Your task to perform on an android device: Clear the shopping cart on ebay.com. Search for amazon basics triple a on ebay.com, select the first entry, add it to the cart, then select checkout. Image 0: 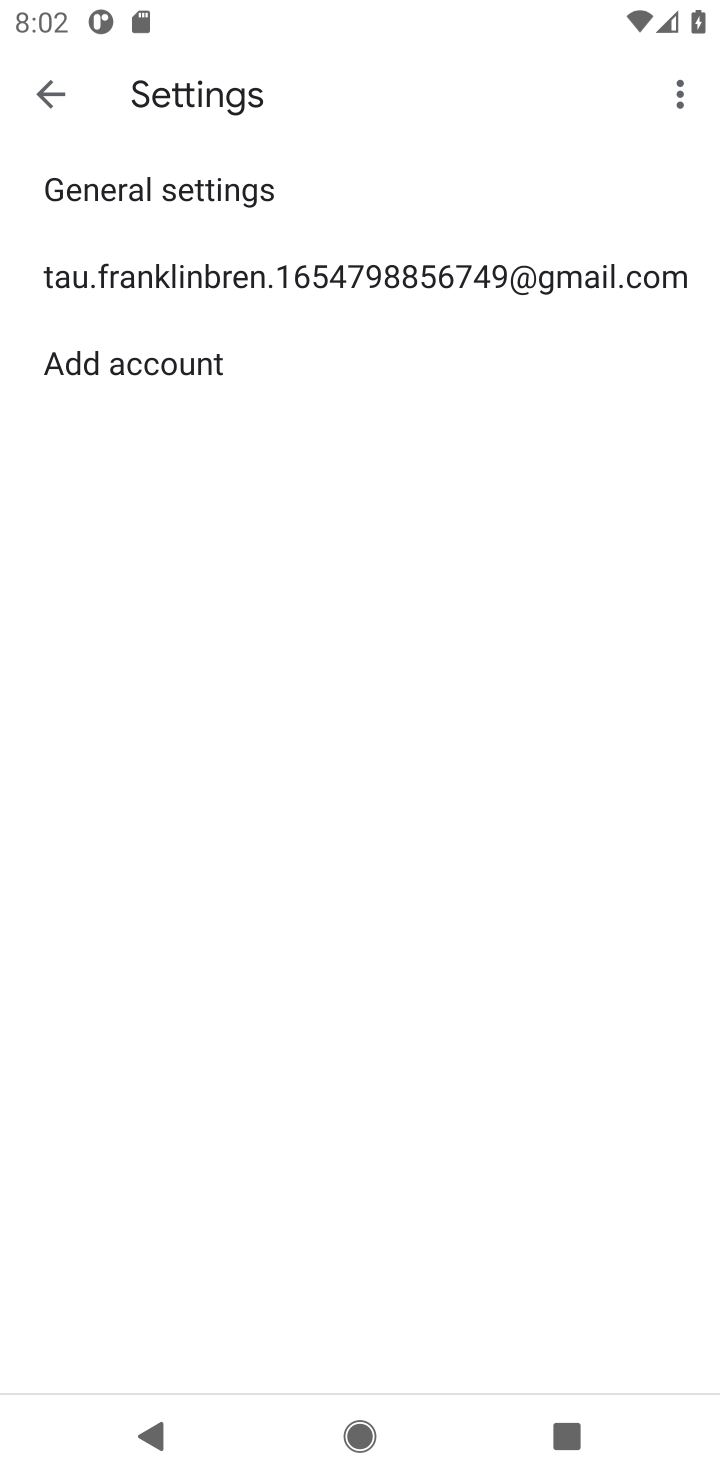
Step 0: press home button
Your task to perform on an android device: Clear the shopping cart on ebay.com. Search for amazon basics triple a on ebay.com, select the first entry, add it to the cart, then select checkout. Image 1: 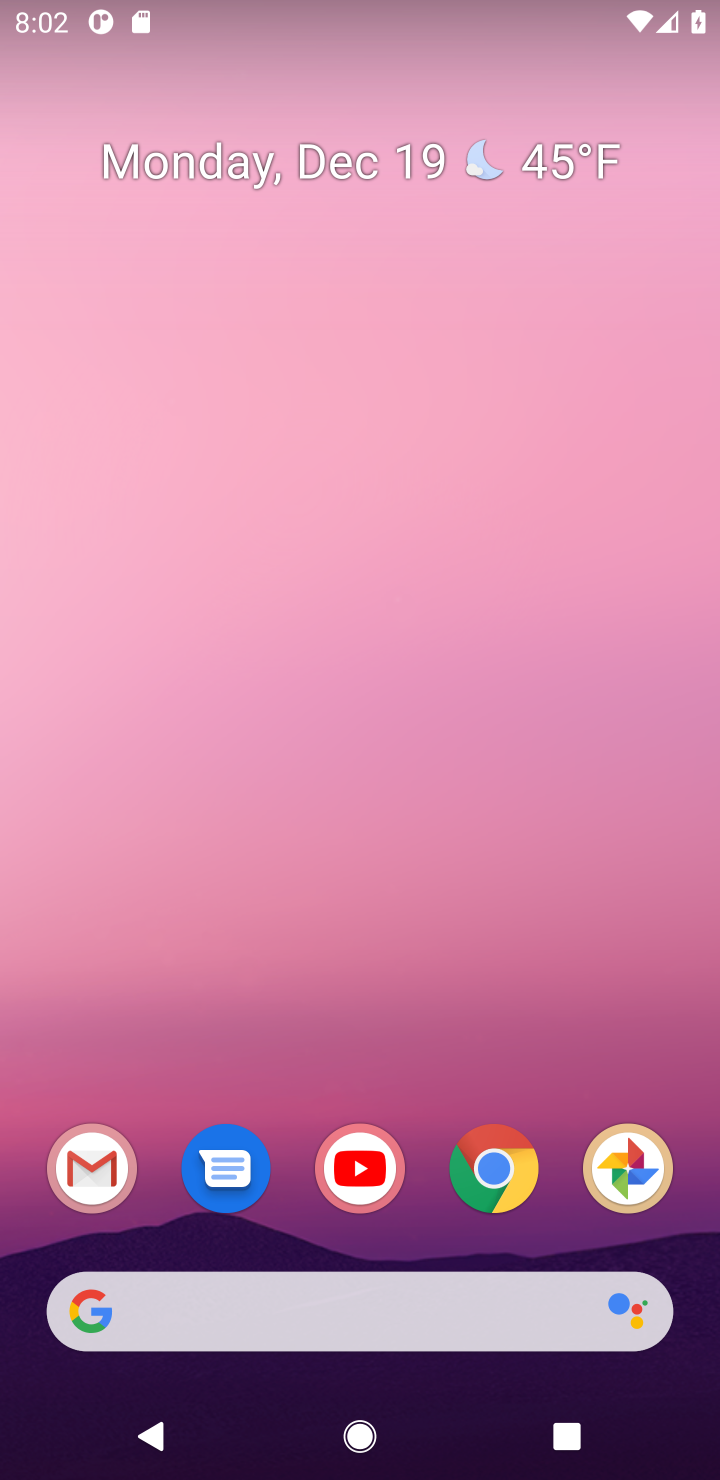
Step 1: click (511, 1177)
Your task to perform on an android device: Clear the shopping cart on ebay.com. Search for amazon basics triple a on ebay.com, select the first entry, add it to the cart, then select checkout. Image 2: 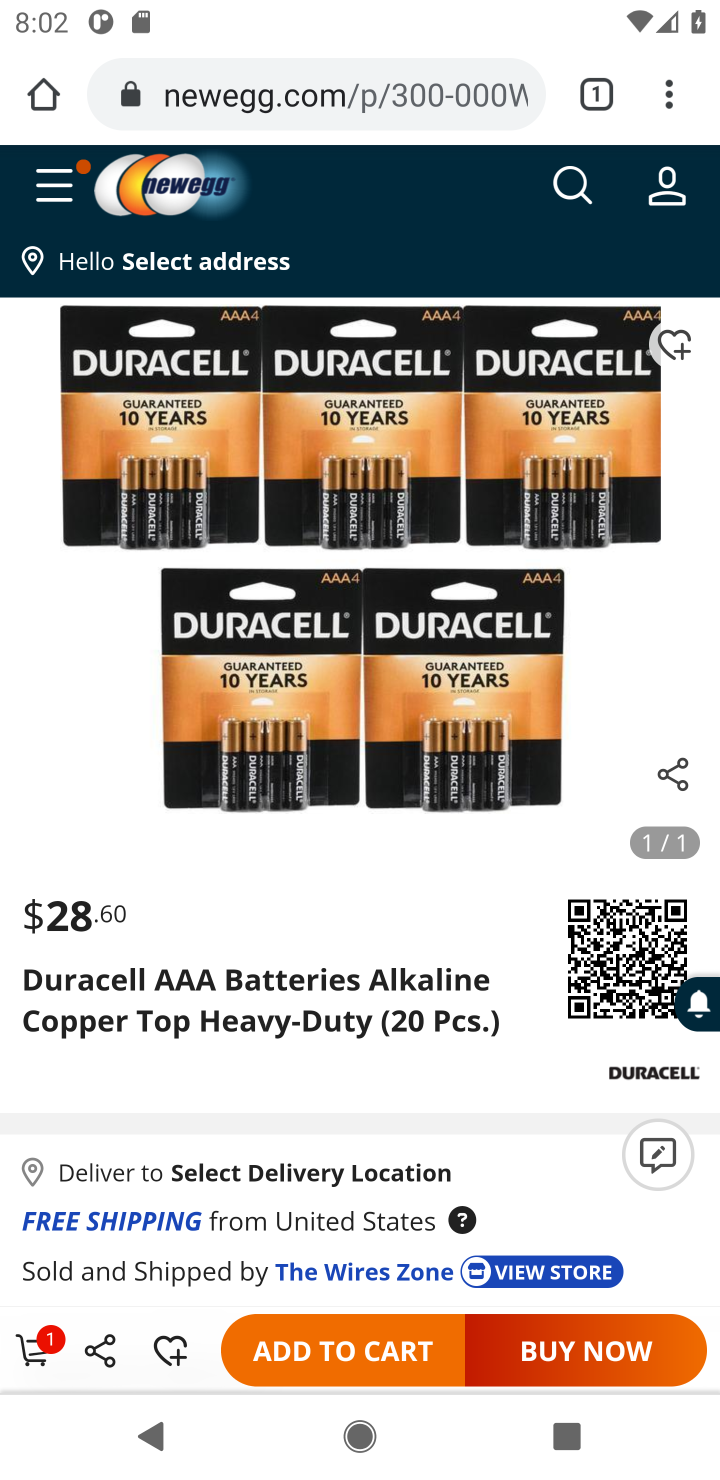
Step 2: click (236, 101)
Your task to perform on an android device: Clear the shopping cart on ebay.com. Search for amazon basics triple a on ebay.com, select the first entry, add it to the cart, then select checkout. Image 3: 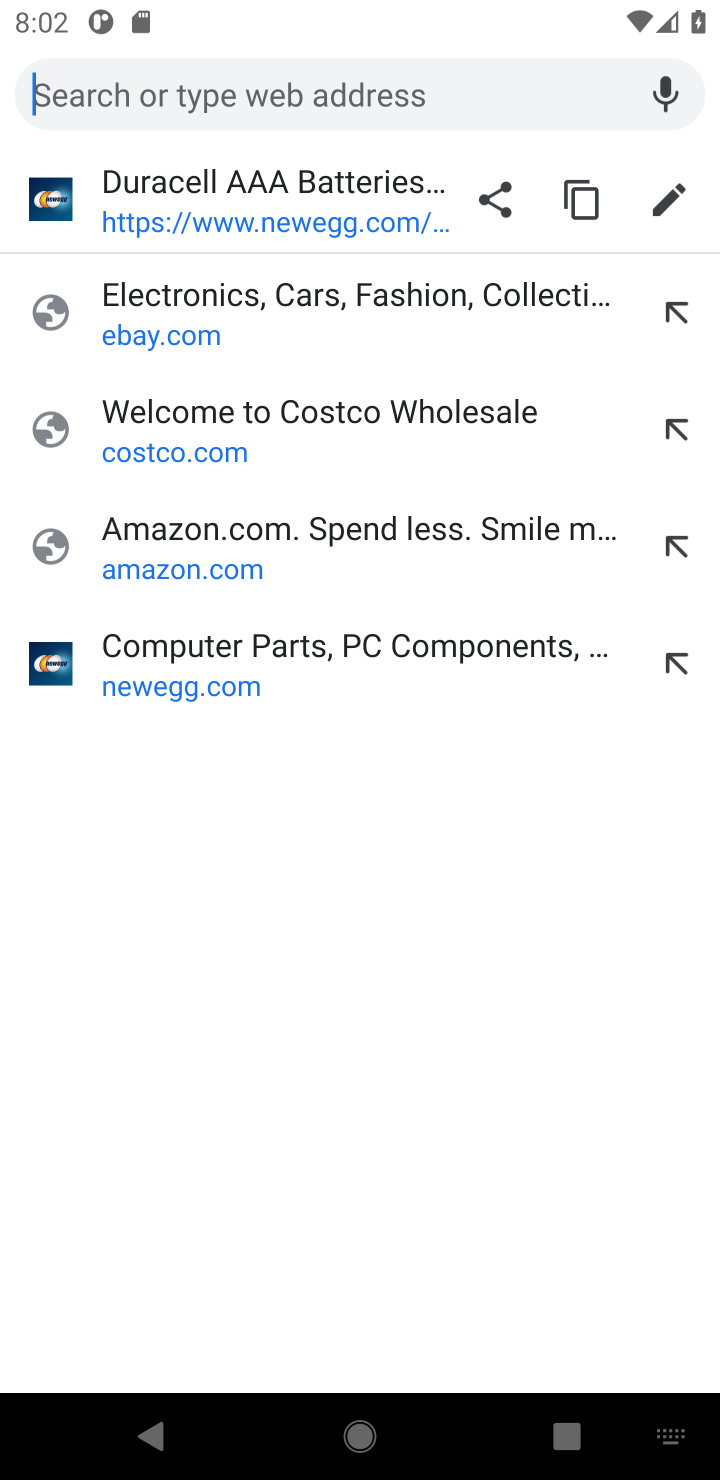
Step 3: click (168, 332)
Your task to perform on an android device: Clear the shopping cart on ebay.com. Search for amazon basics triple a on ebay.com, select the first entry, add it to the cart, then select checkout. Image 4: 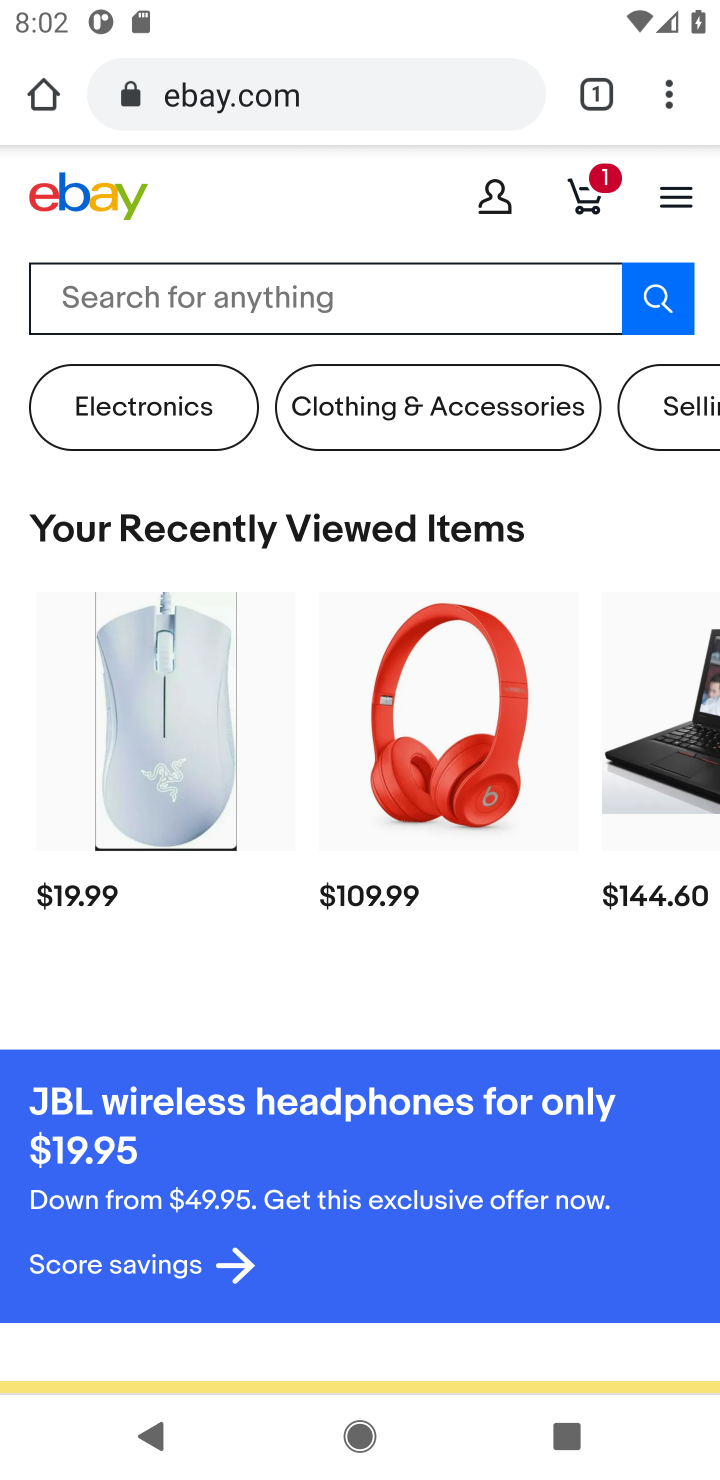
Step 4: click (591, 193)
Your task to perform on an android device: Clear the shopping cart on ebay.com. Search for amazon basics triple a on ebay.com, select the first entry, add it to the cart, then select checkout. Image 5: 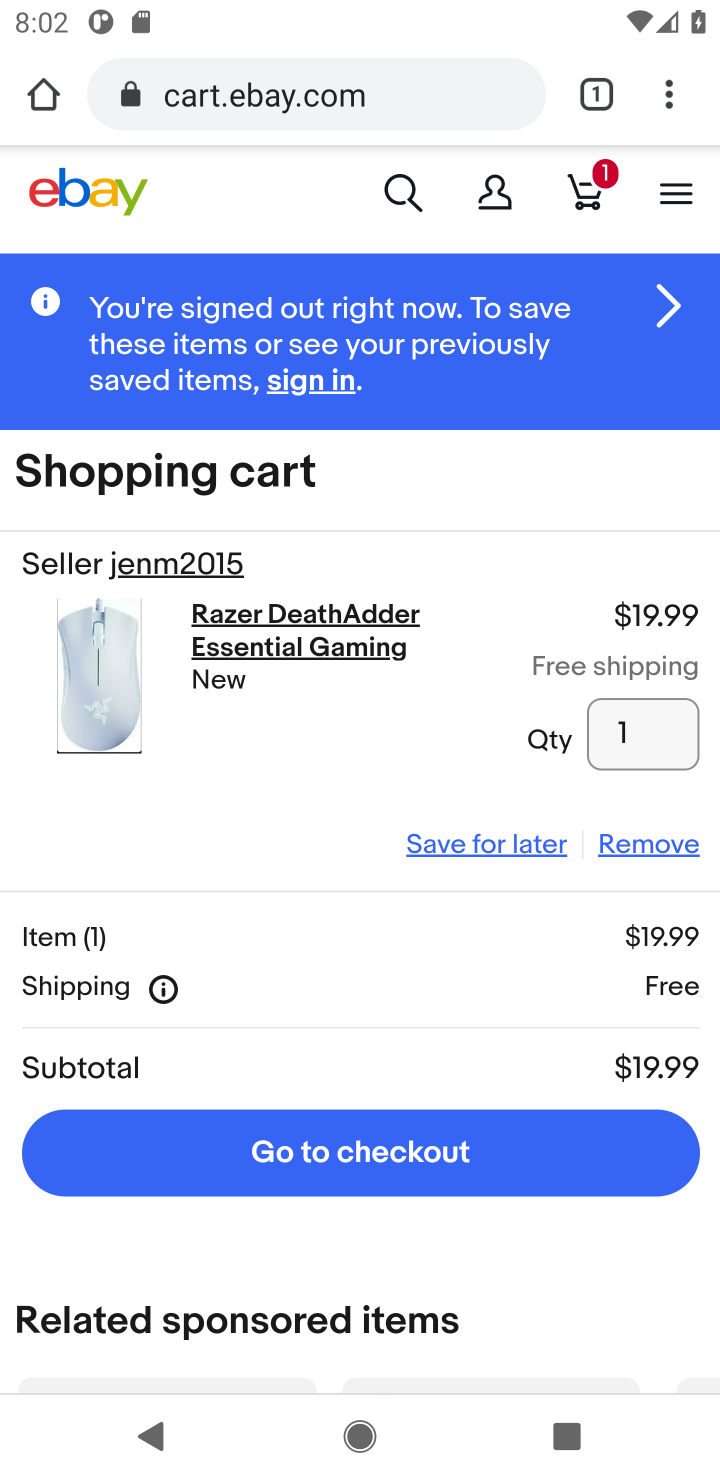
Step 5: click (635, 838)
Your task to perform on an android device: Clear the shopping cart on ebay.com. Search for amazon basics triple a on ebay.com, select the first entry, add it to the cart, then select checkout. Image 6: 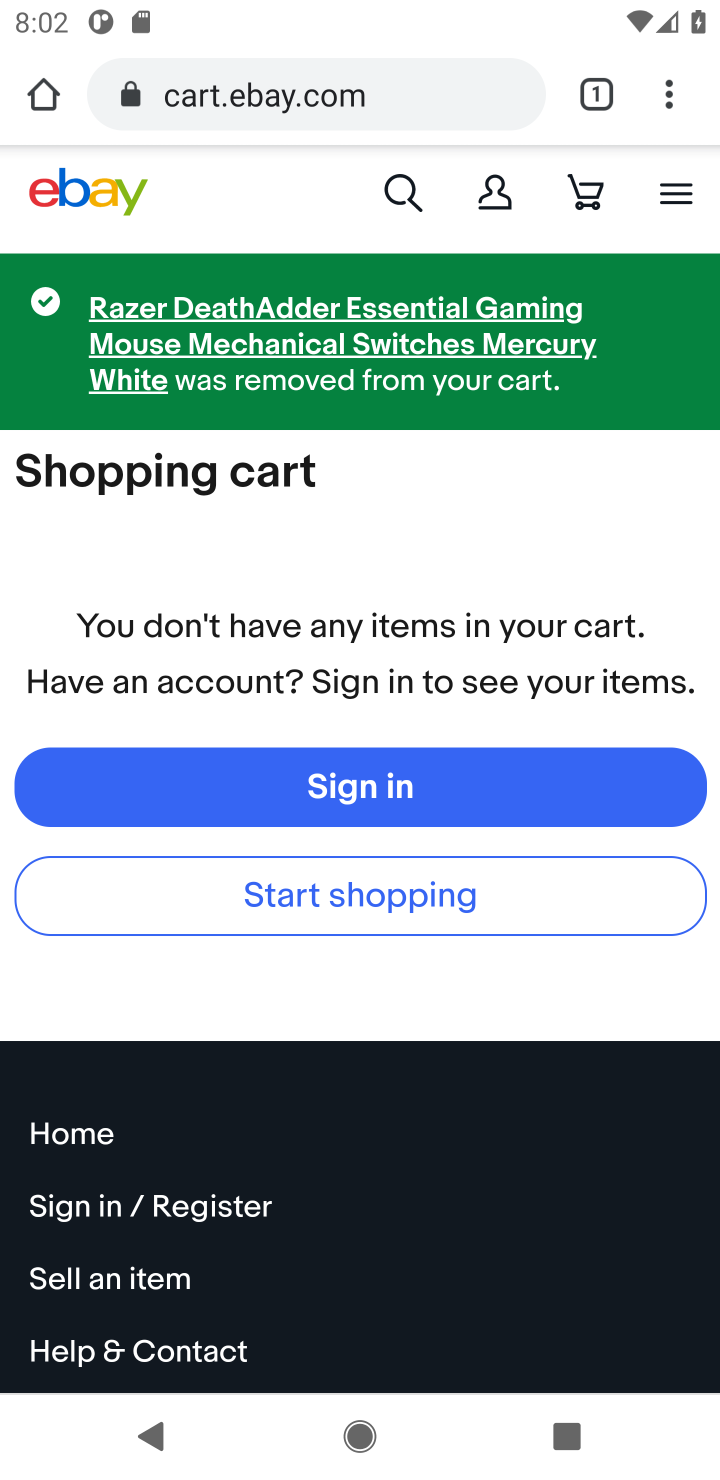
Step 6: click (393, 194)
Your task to perform on an android device: Clear the shopping cart on ebay.com. Search for amazon basics triple a on ebay.com, select the first entry, add it to the cart, then select checkout. Image 7: 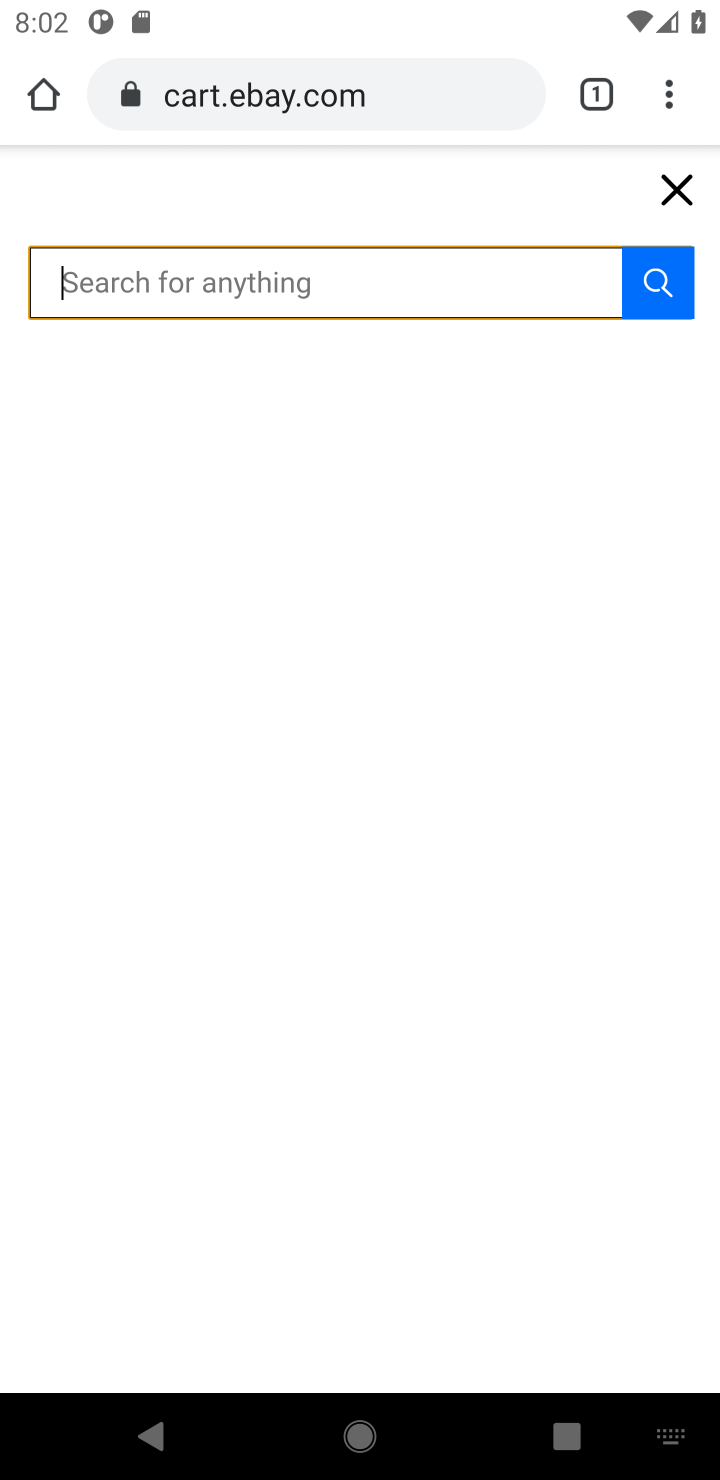
Step 7: type "amazon basics triple a"
Your task to perform on an android device: Clear the shopping cart on ebay.com. Search for amazon basics triple a on ebay.com, select the first entry, add it to the cart, then select checkout. Image 8: 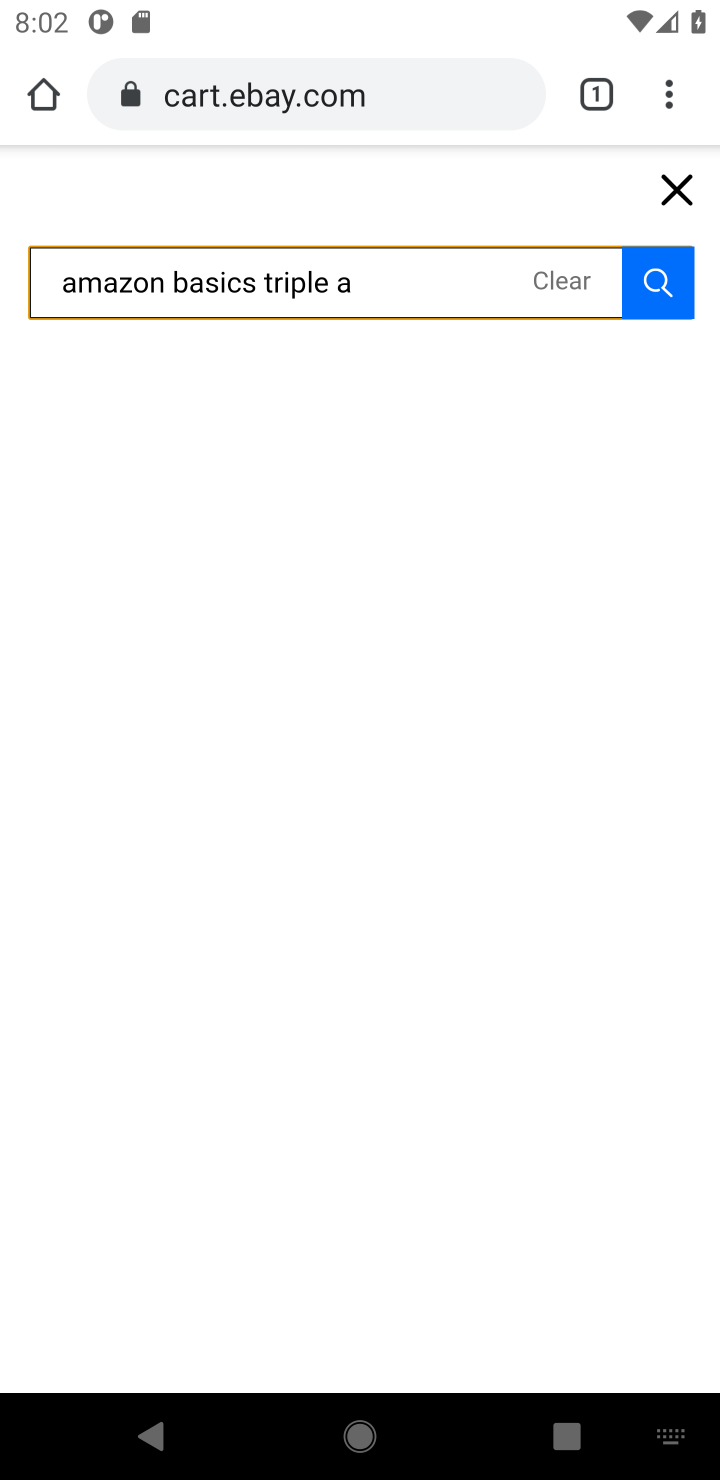
Step 8: click (644, 281)
Your task to perform on an android device: Clear the shopping cart on ebay.com. Search for amazon basics triple a on ebay.com, select the first entry, add it to the cart, then select checkout. Image 9: 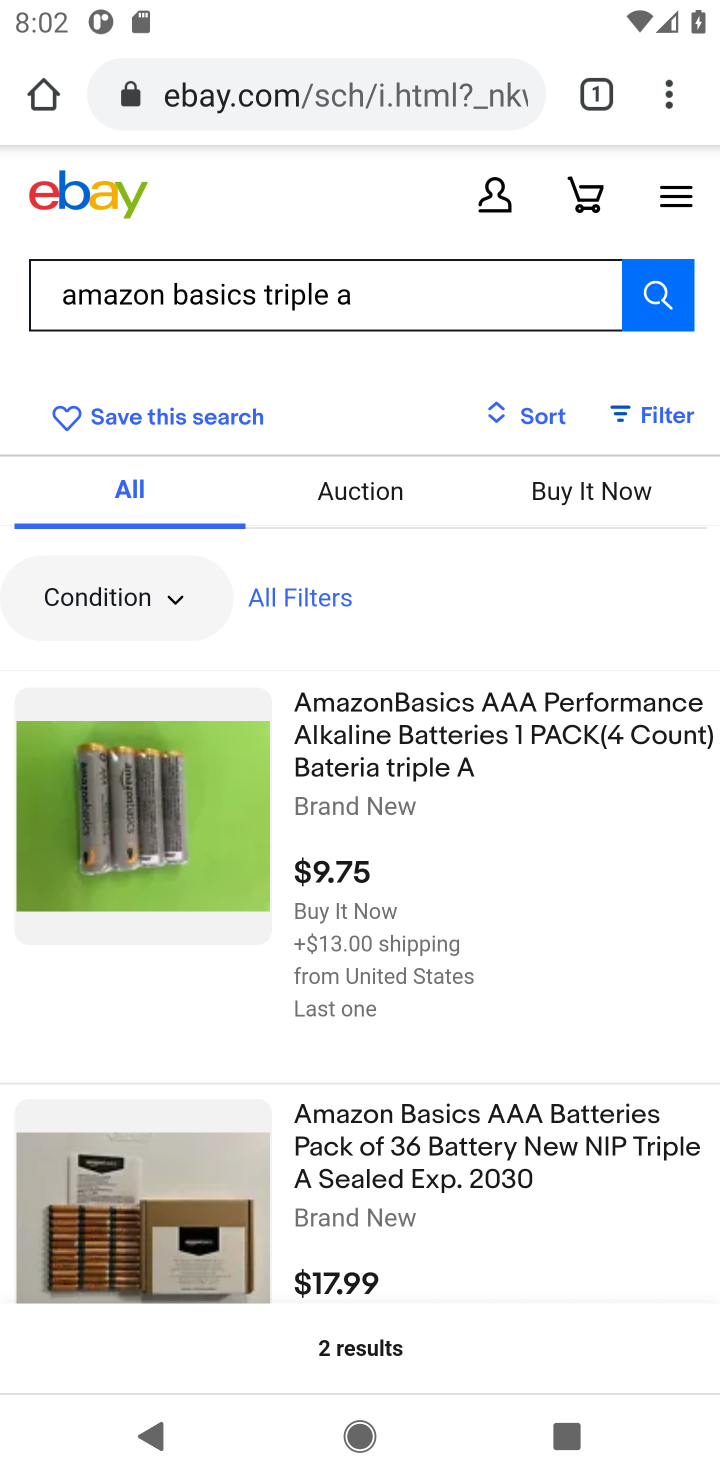
Step 9: click (321, 718)
Your task to perform on an android device: Clear the shopping cart on ebay.com. Search for amazon basics triple a on ebay.com, select the first entry, add it to the cart, then select checkout. Image 10: 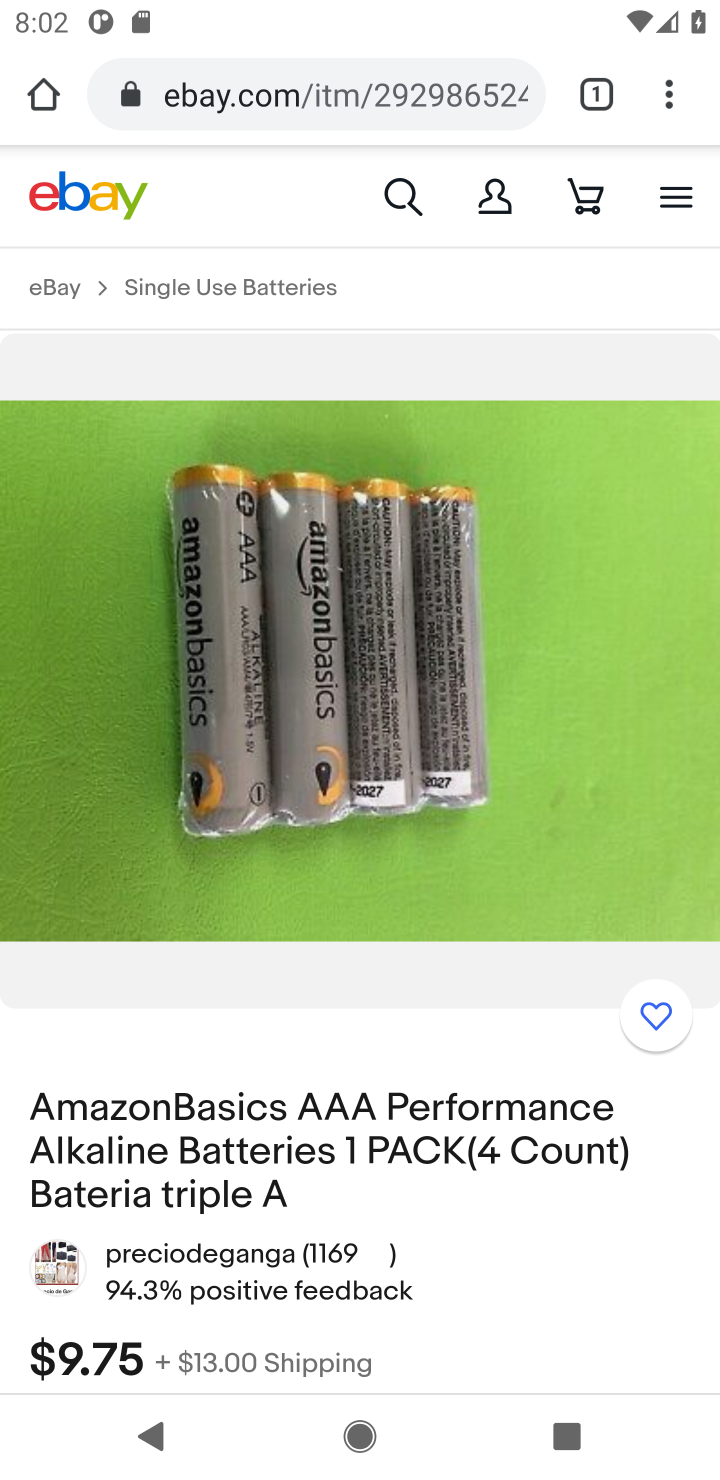
Step 10: drag from (303, 831) to (306, 457)
Your task to perform on an android device: Clear the shopping cart on ebay.com. Search for amazon basics triple a on ebay.com, select the first entry, add it to the cart, then select checkout. Image 11: 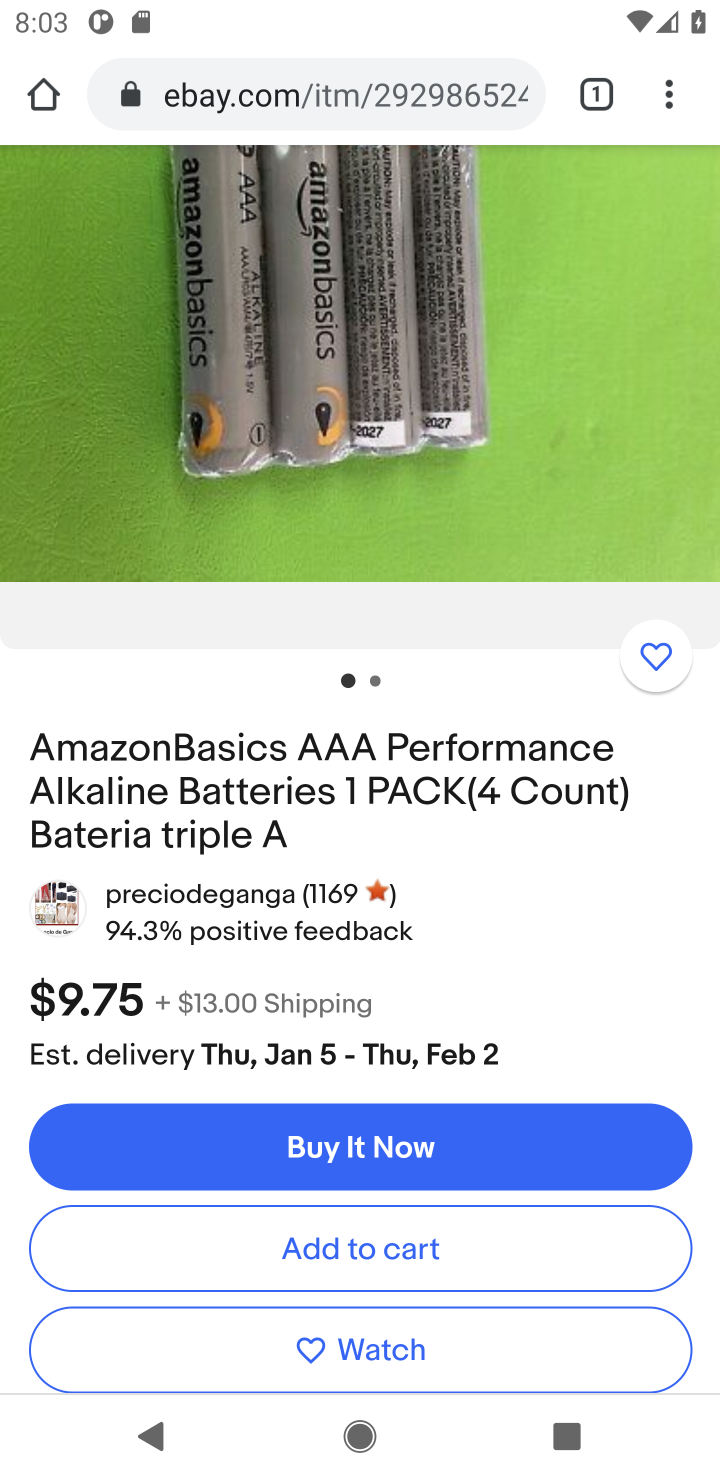
Step 11: click (291, 1239)
Your task to perform on an android device: Clear the shopping cart on ebay.com. Search for amazon basics triple a on ebay.com, select the first entry, add it to the cart, then select checkout. Image 12: 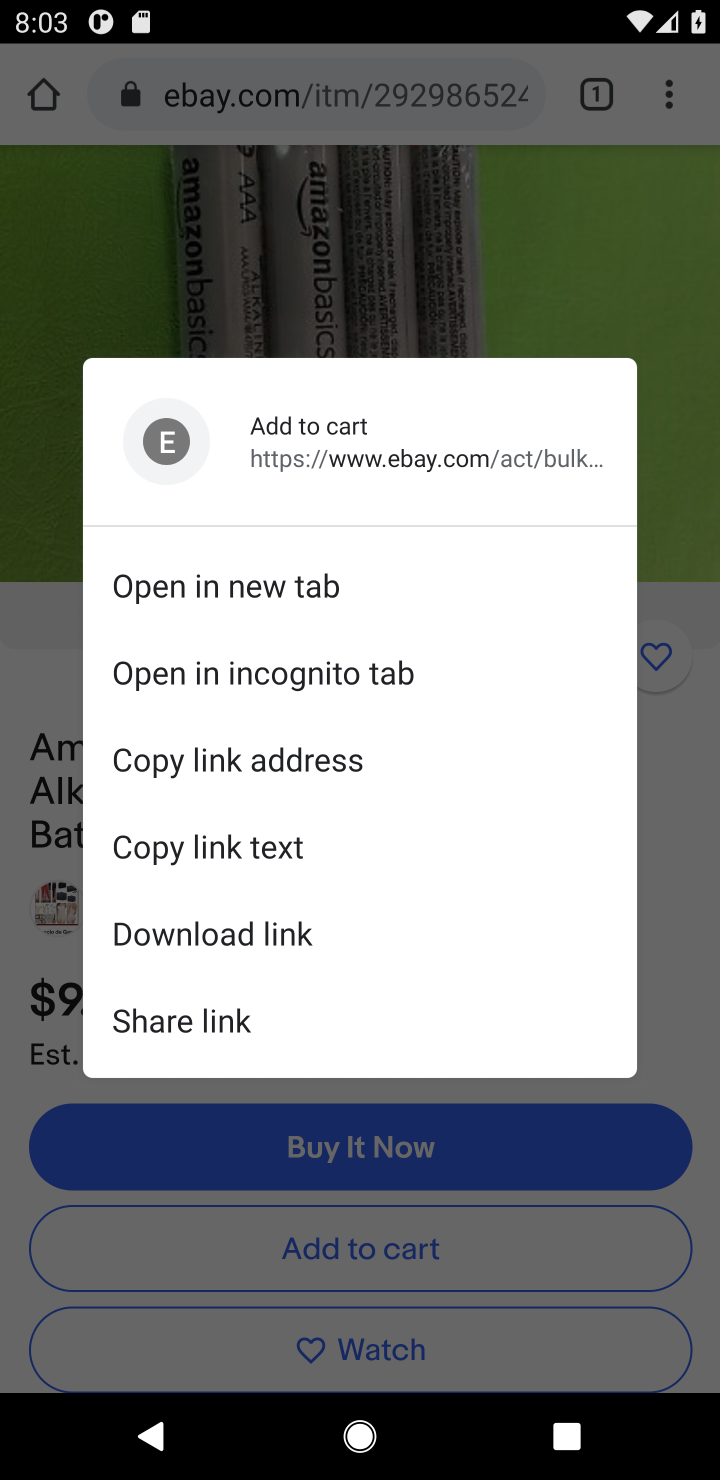
Step 12: click (489, 1265)
Your task to perform on an android device: Clear the shopping cart on ebay.com. Search for amazon basics triple a on ebay.com, select the first entry, add it to the cart, then select checkout. Image 13: 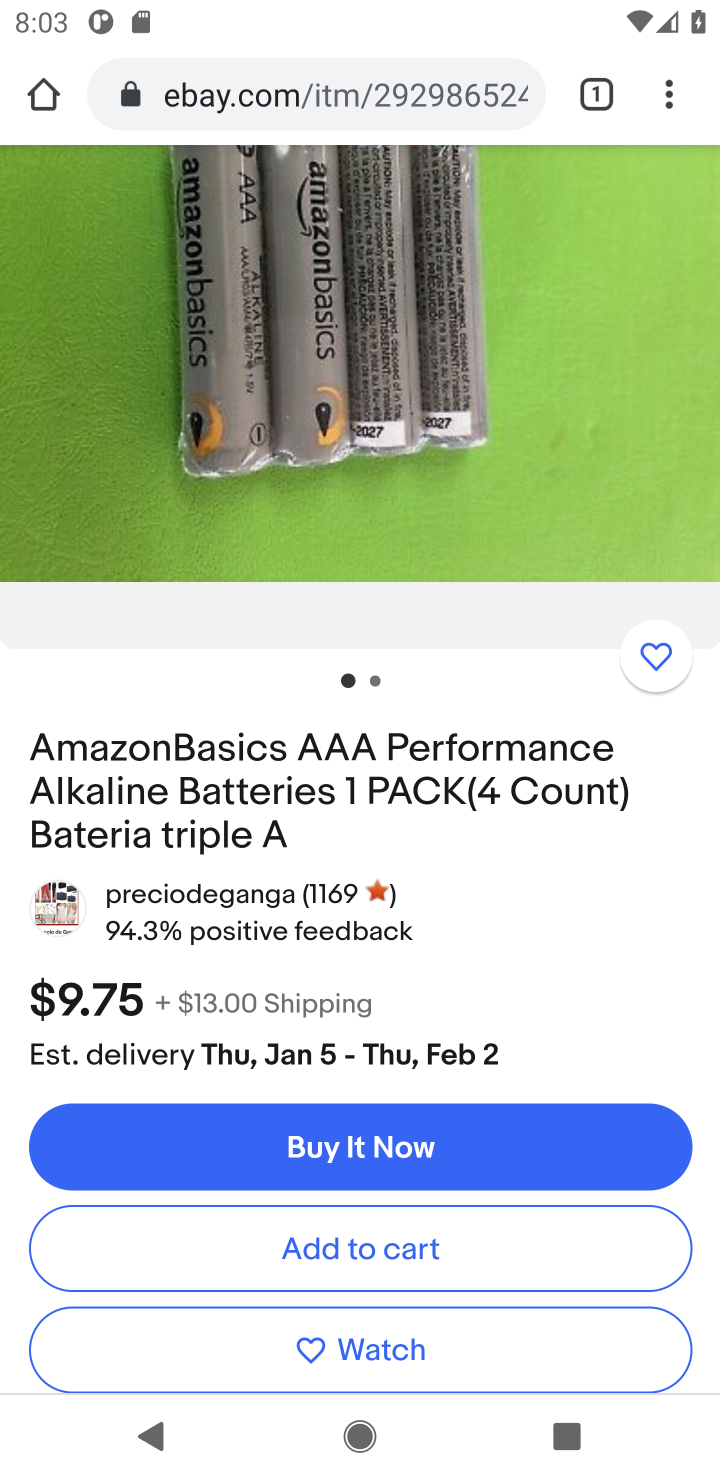
Step 13: click (379, 1244)
Your task to perform on an android device: Clear the shopping cart on ebay.com. Search for amazon basics triple a on ebay.com, select the first entry, add it to the cart, then select checkout. Image 14: 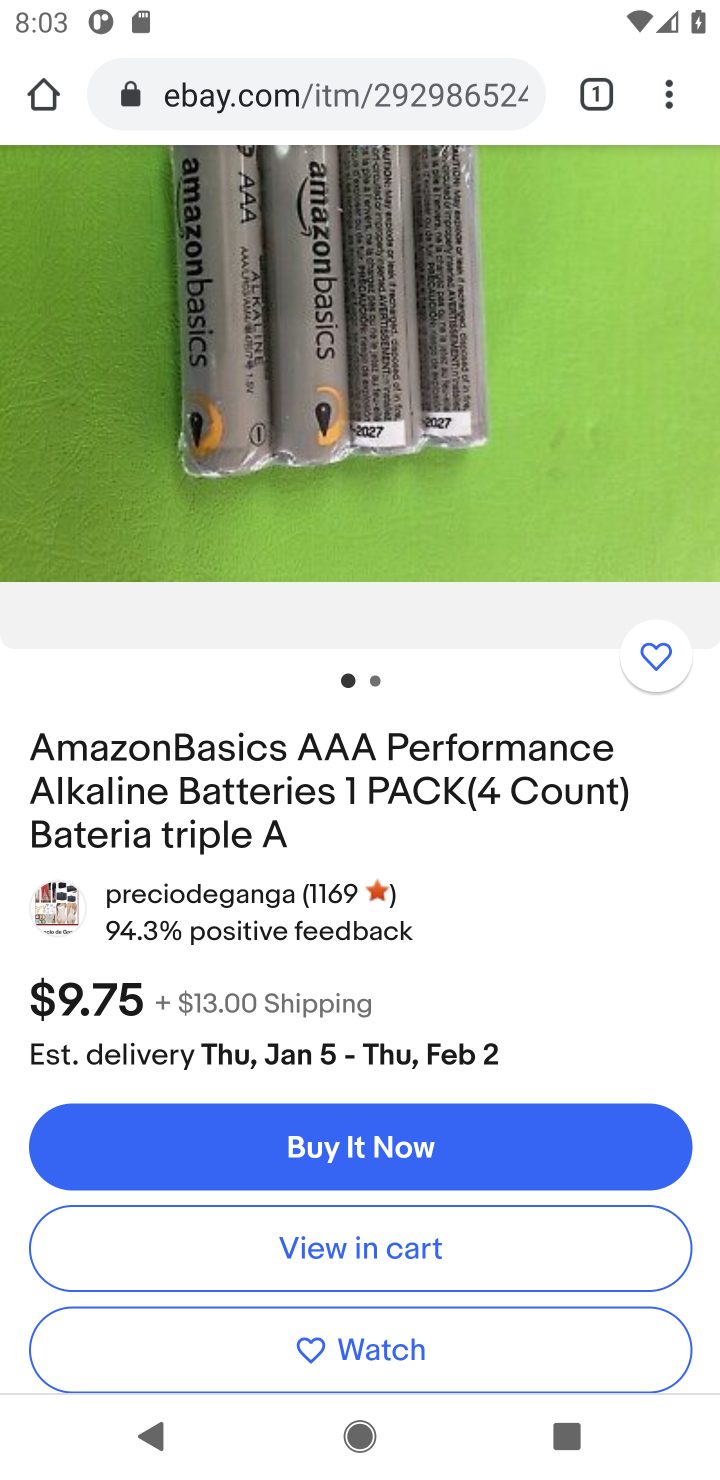
Step 14: click (379, 1244)
Your task to perform on an android device: Clear the shopping cart on ebay.com. Search for amazon basics triple a on ebay.com, select the first entry, add it to the cart, then select checkout. Image 15: 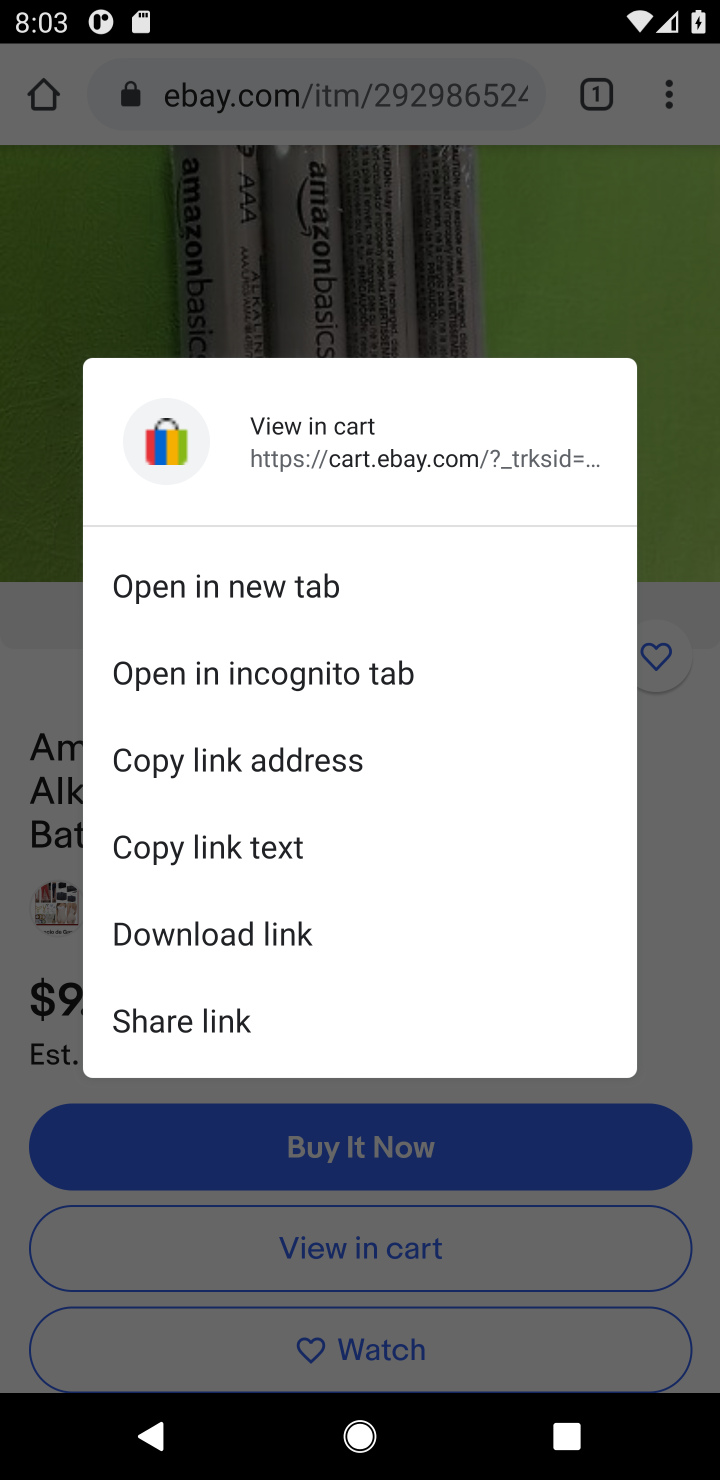
Step 15: click (379, 1244)
Your task to perform on an android device: Clear the shopping cart on ebay.com. Search for amazon basics triple a on ebay.com, select the first entry, add it to the cart, then select checkout. Image 16: 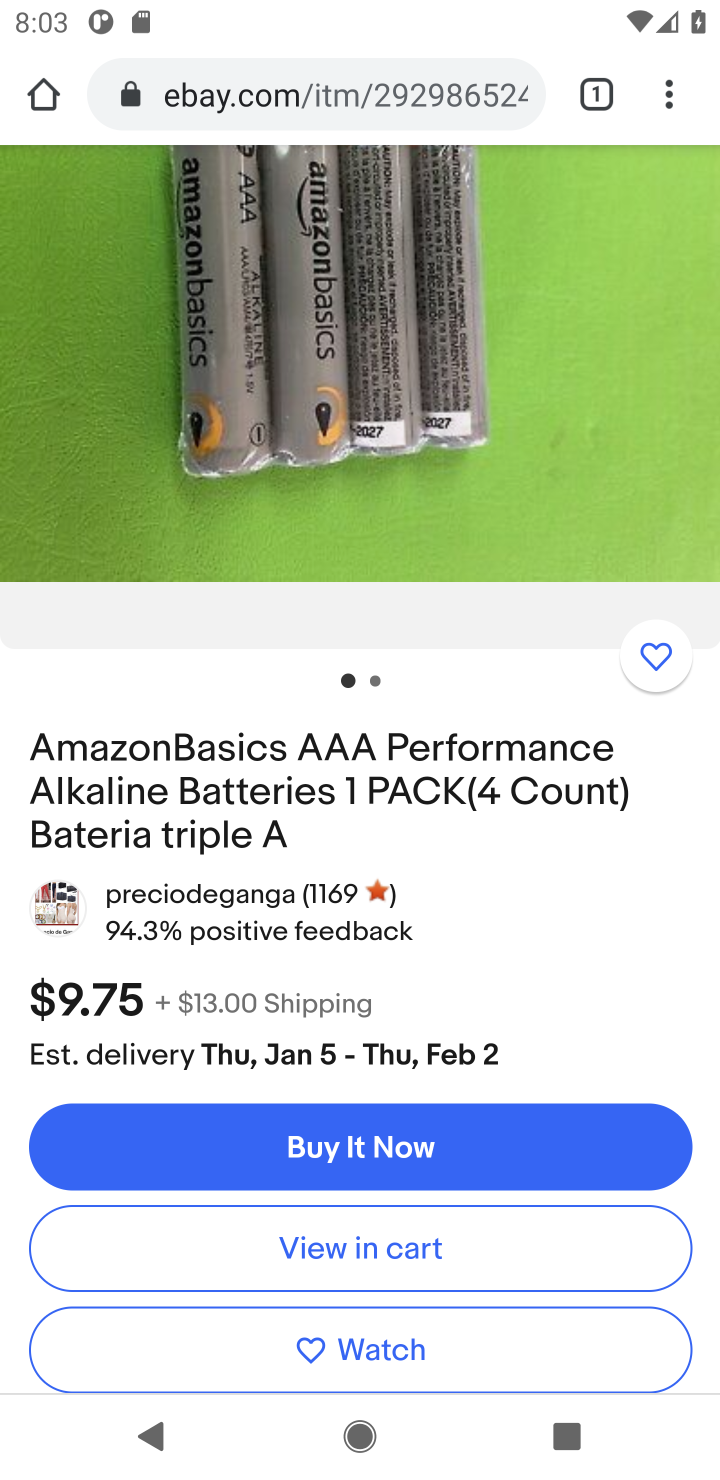
Step 16: click (379, 1244)
Your task to perform on an android device: Clear the shopping cart on ebay.com. Search for amazon basics triple a on ebay.com, select the first entry, add it to the cart, then select checkout. Image 17: 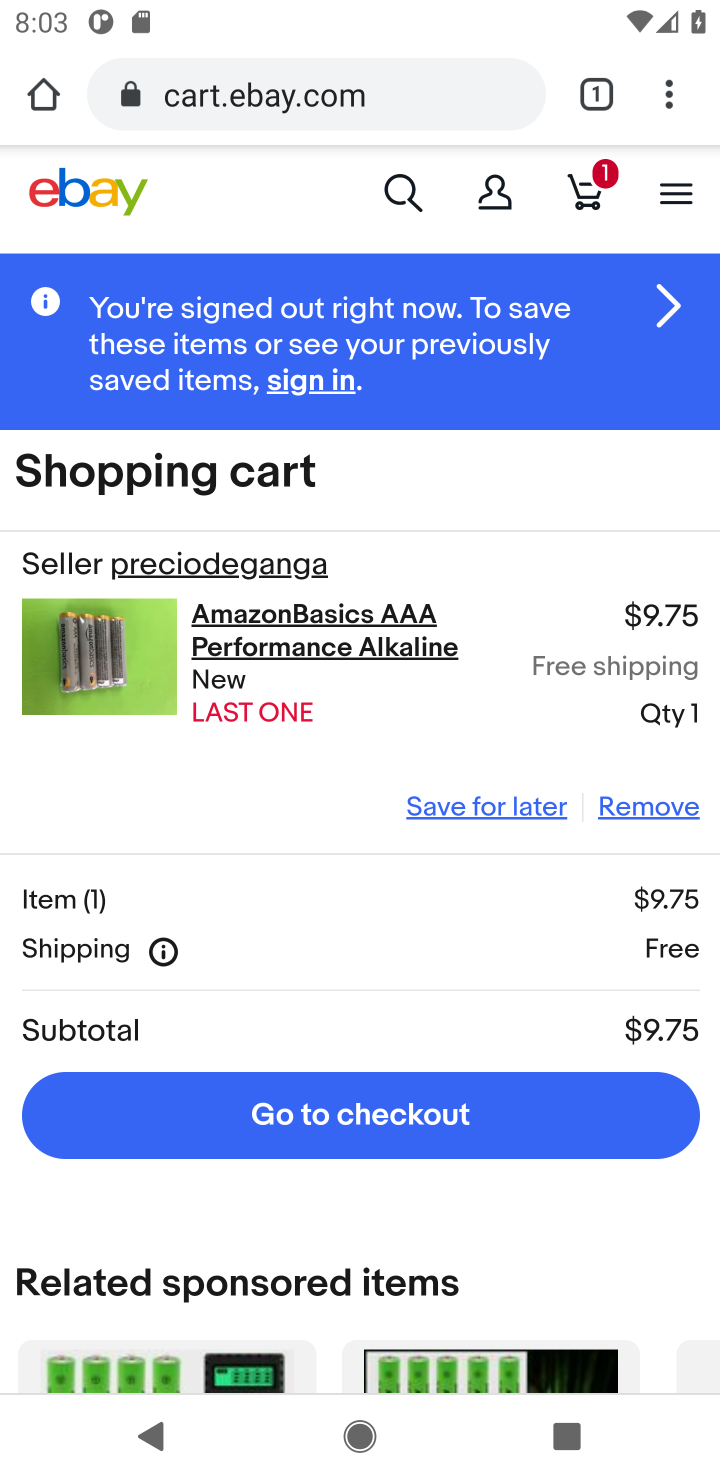
Step 17: click (351, 1130)
Your task to perform on an android device: Clear the shopping cart on ebay.com. Search for amazon basics triple a on ebay.com, select the first entry, add it to the cart, then select checkout. Image 18: 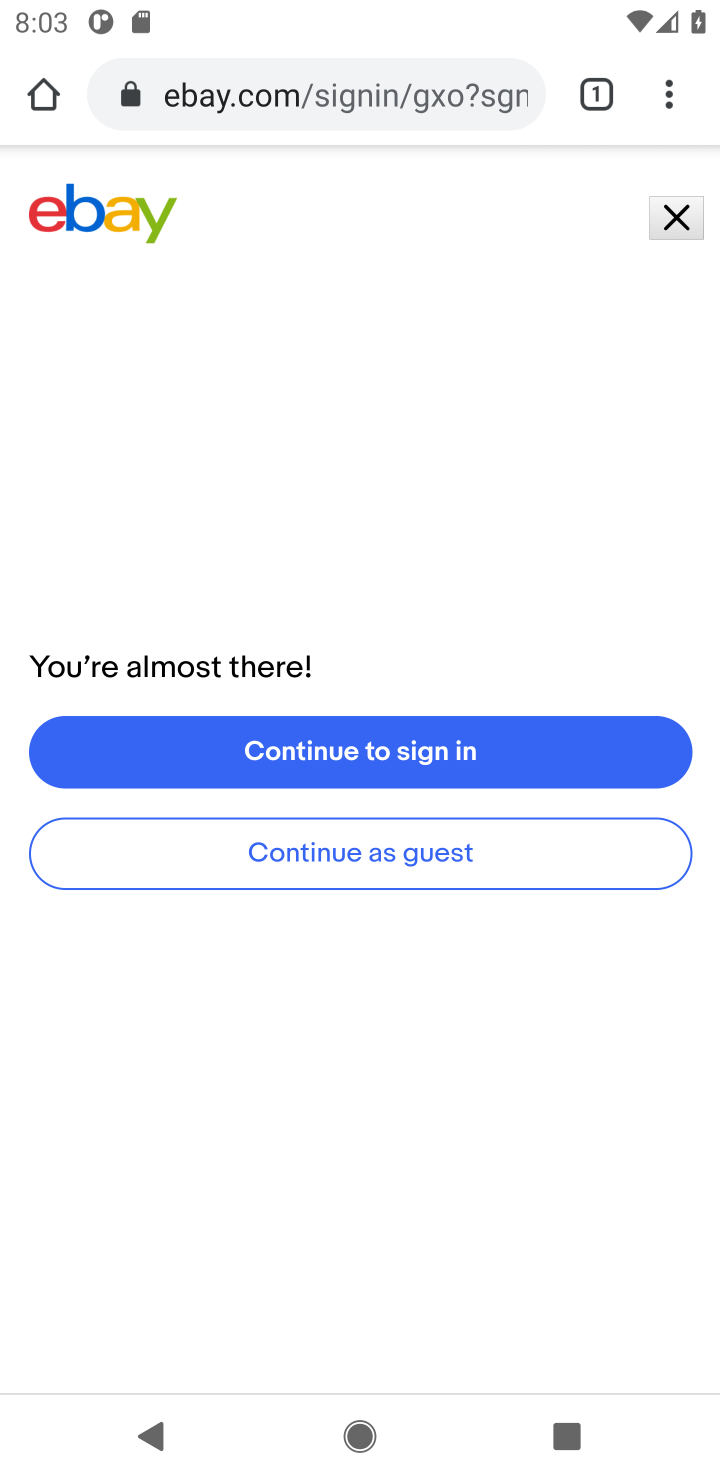
Step 18: task complete